Your task to perform on an android device: delete the emails in spam in the gmail app Image 0: 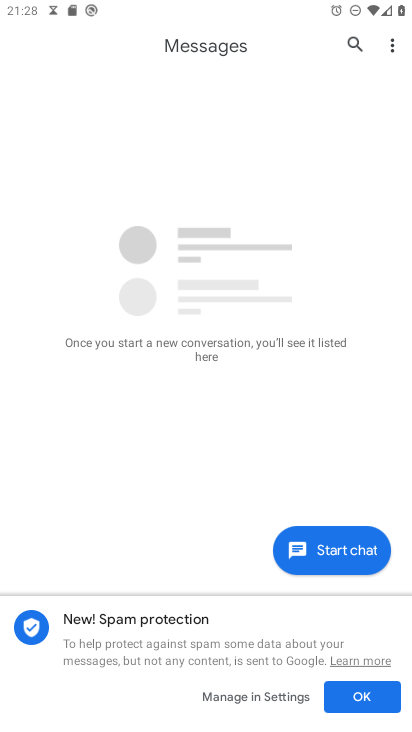
Step 0: press home button
Your task to perform on an android device: delete the emails in spam in the gmail app Image 1: 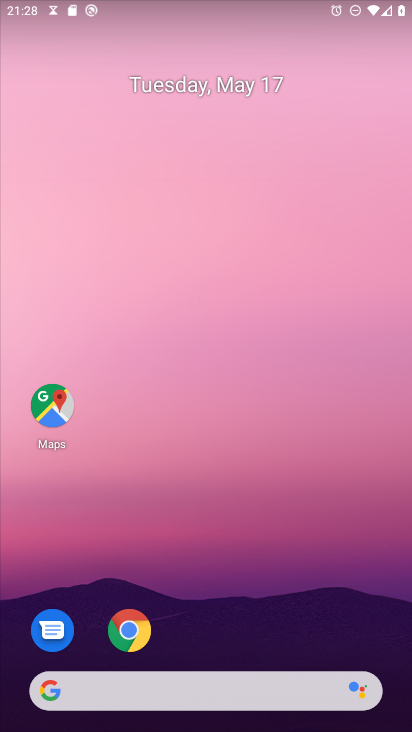
Step 1: drag from (177, 625) to (156, 173)
Your task to perform on an android device: delete the emails in spam in the gmail app Image 2: 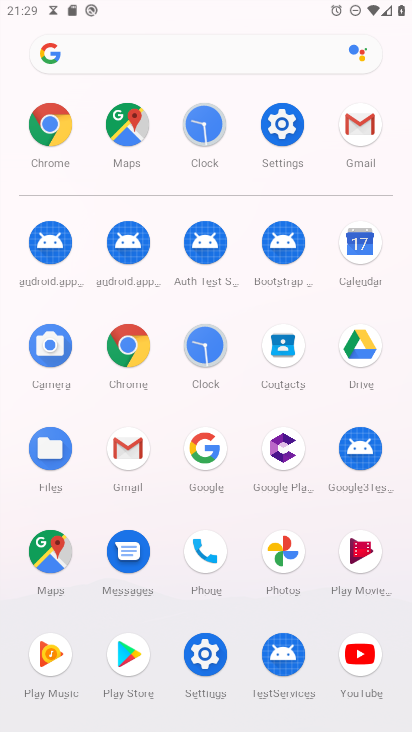
Step 2: click (123, 465)
Your task to perform on an android device: delete the emails in spam in the gmail app Image 3: 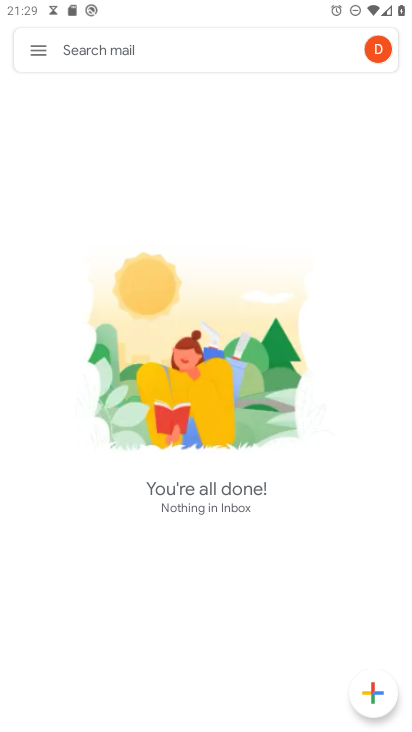
Step 3: click (41, 50)
Your task to perform on an android device: delete the emails in spam in the gmail app Image 4: 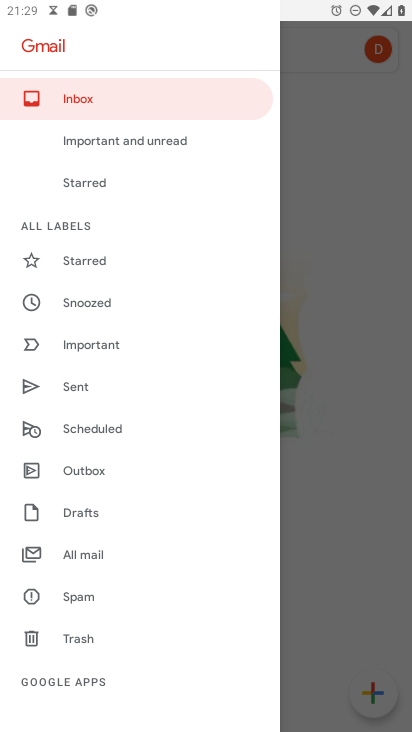
Step 4: click (82, 603)
Your task to perform on an android device: delete the emails in spam in the gmail app Image 5: 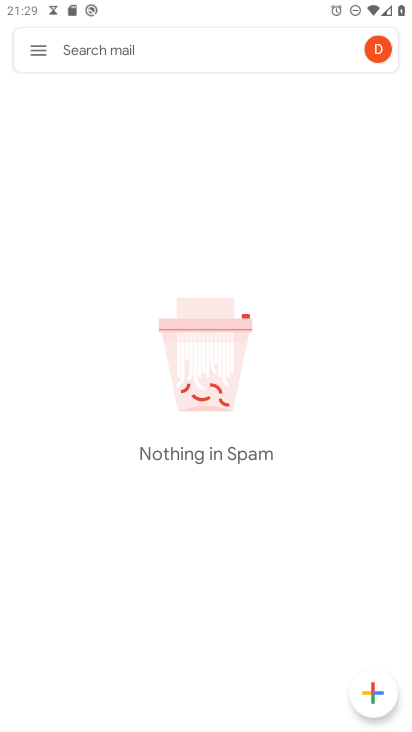
Step 5: task complete